Your task to perform on an android device: open app "ZOOM Cloud Meetings" Image 0: 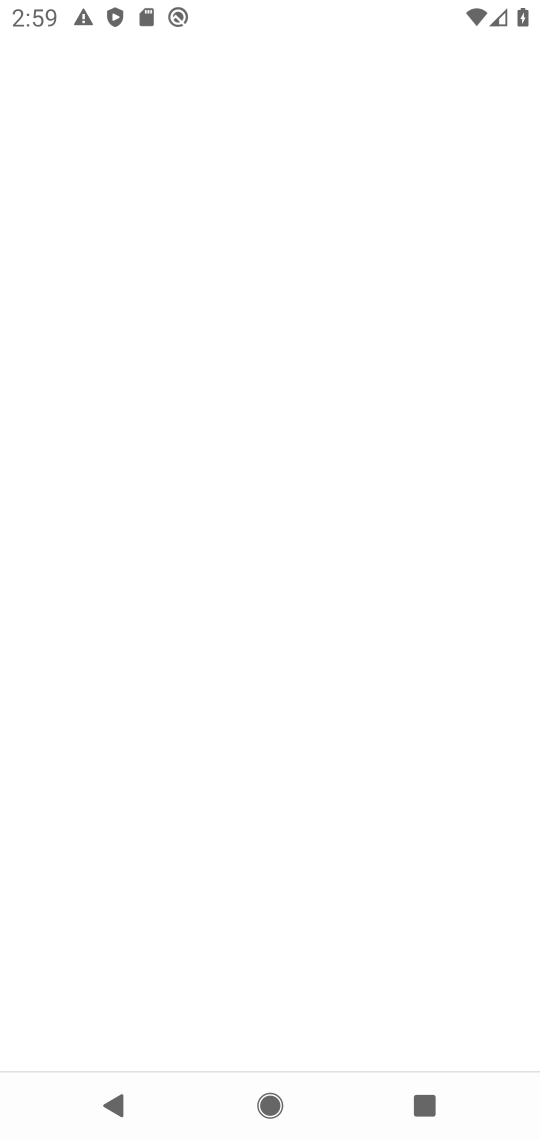
Step 0: press home button
Your task to perform on an android device: open app "ZOOM Cloud Meetings" Image 1: 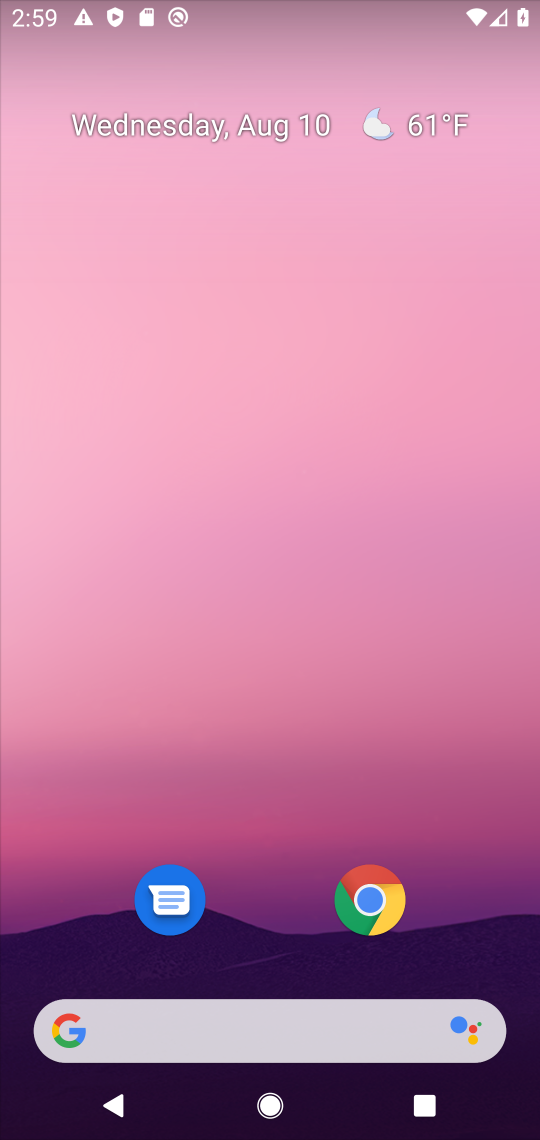
Step 1: drag from (283, 969) to (433, 104)
Your task to perform on an android device: open app "ZOOM Cloud Meetings" Image 2: 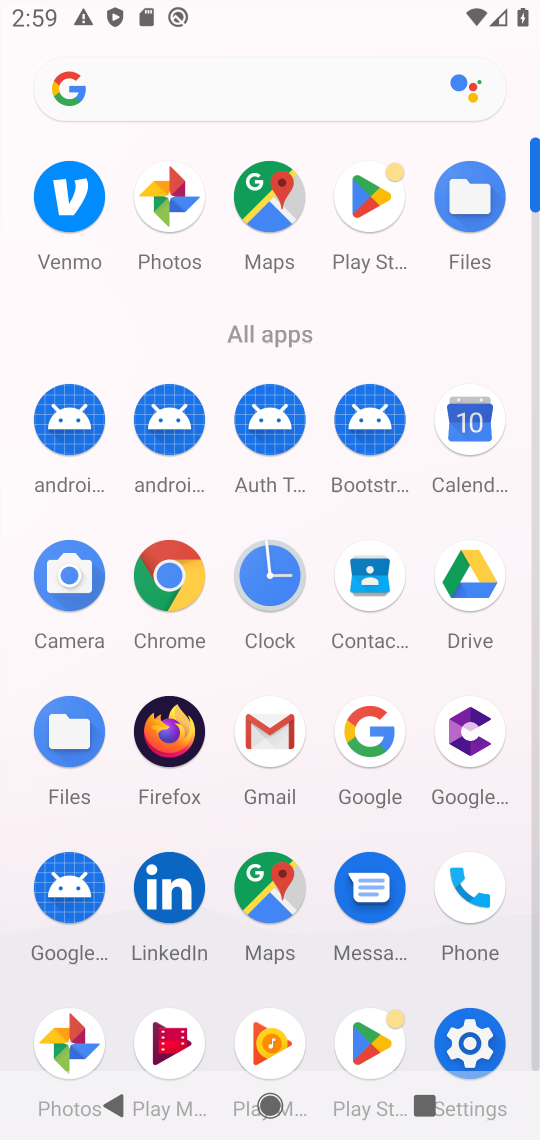
Step 2: click (364, 1033)
Your task to perform on an android device: open app "ZOOM Cloud Meetings" Image 3: 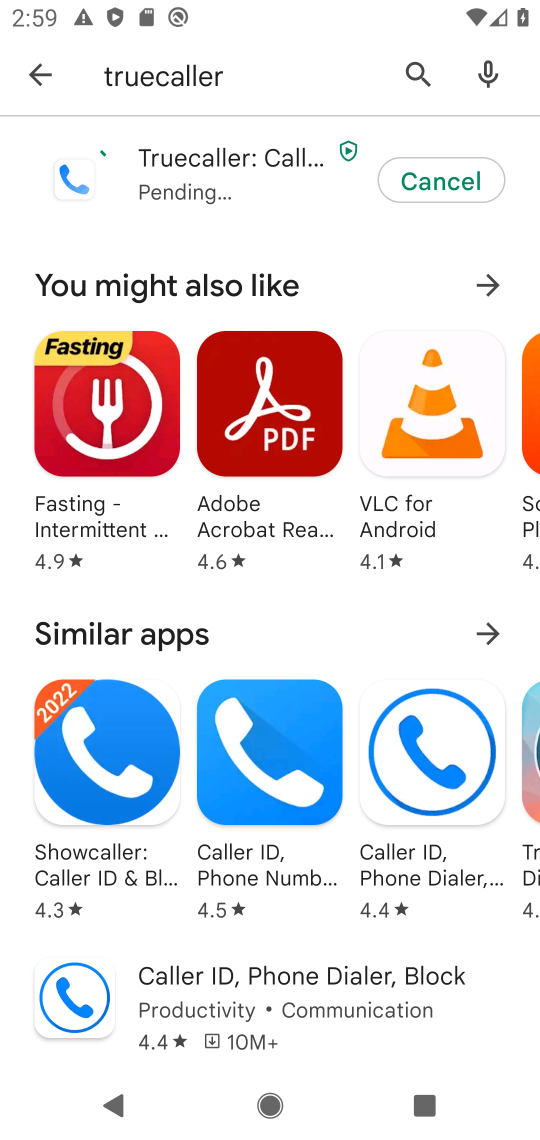
Step 3: click (416, 91)
Your task to perform on an android device: open app "ZOOM Cloud Meetings" Image 4: 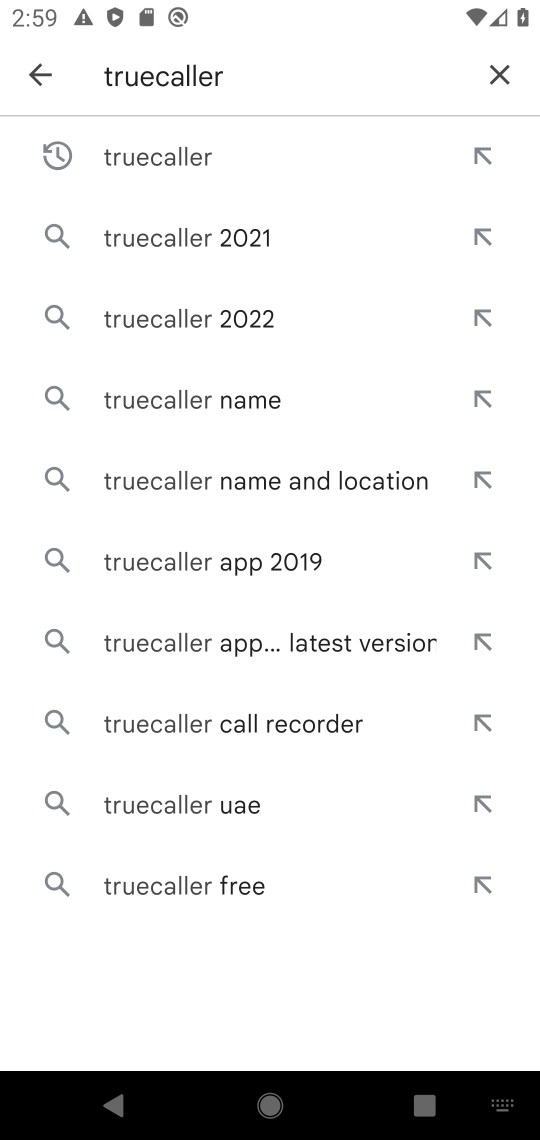
Step 4: click (500, 83)
Your task to perform on an android device: open app "ZOOM Cloud Meetings" Image 5: 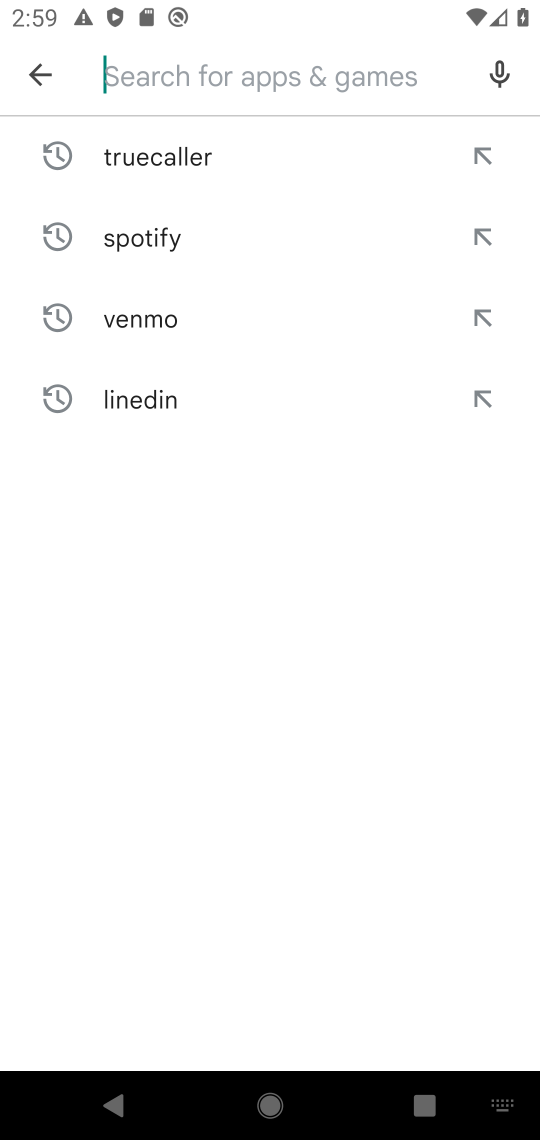
Step 5: type "zoom"
Your task to perform on an android device: open app "ZOOM Cloud Meetings" Image 6: 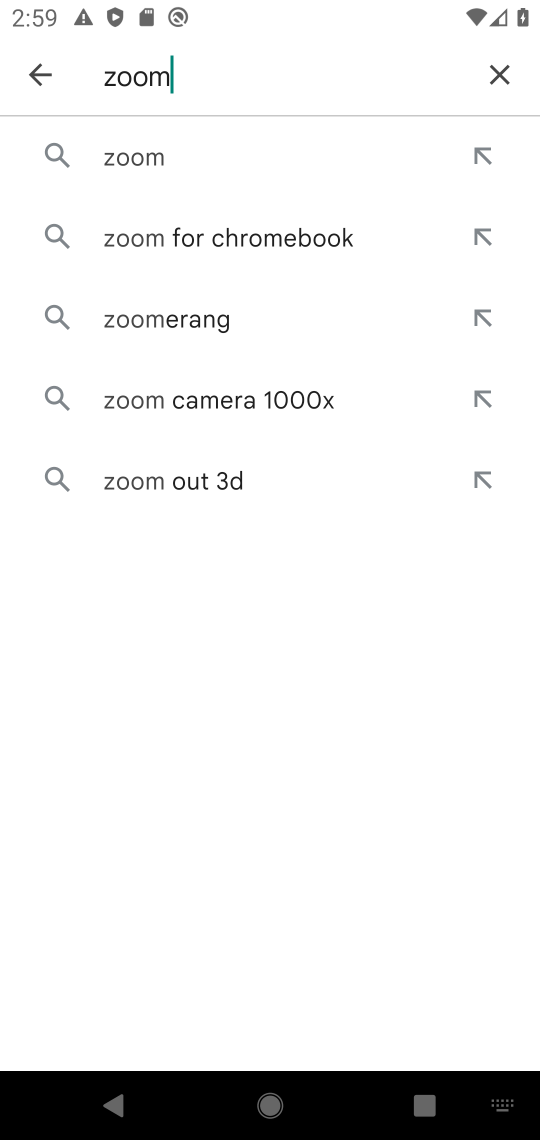
Step 6: click (233, 168)
Your task to perform on an android device: open app "ZOOM Cloud Meetings" Image 7: 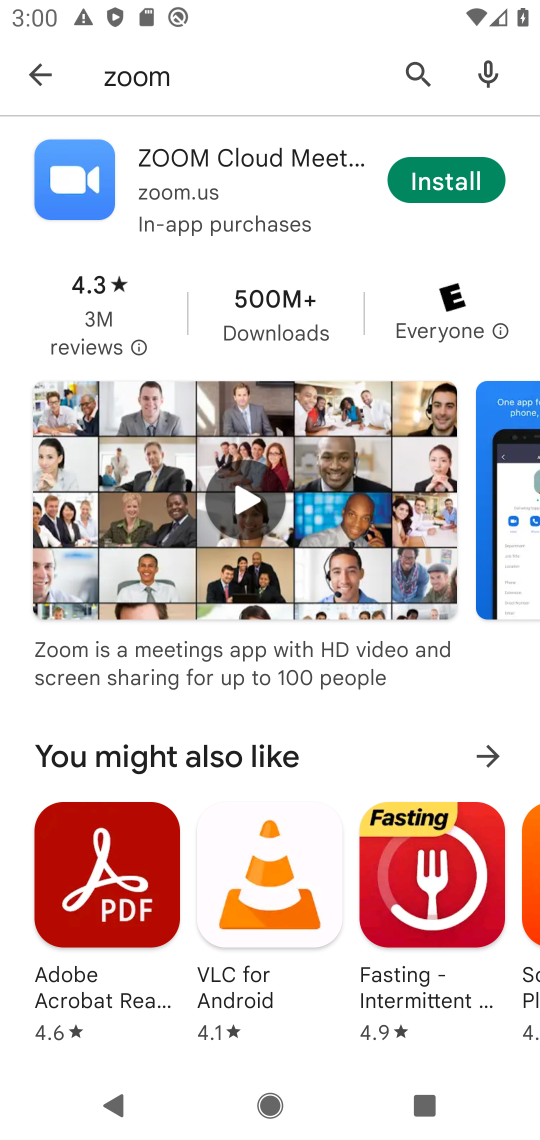
Step 7: click (453, 183)
Your task to perform on an android device: open app "ZOOM Cloud Meetings" Image 8: 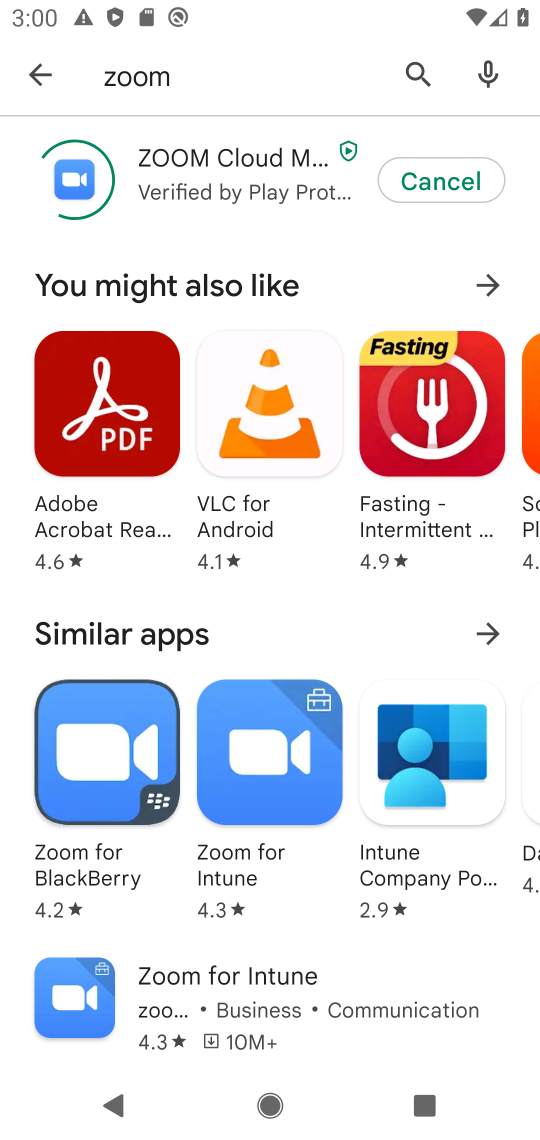
Step 8: task complete